Your task to perform on an android device: turn off smart reply in the gmail app Image 0: 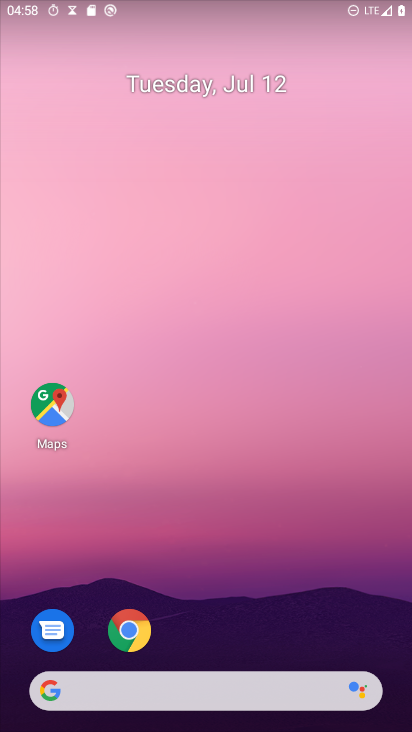
Step 0: drag from (315, 543) to (350, 0)
Your task to perform on an android device: turn off smart reply in the gmail app Image 1: 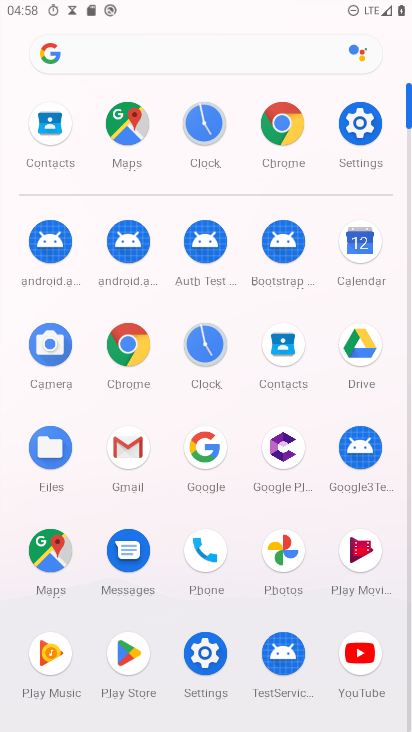
Step 1: click (136, 449)
Your task to perform on an android device: turn off smart reply in the gmail app Image 2: 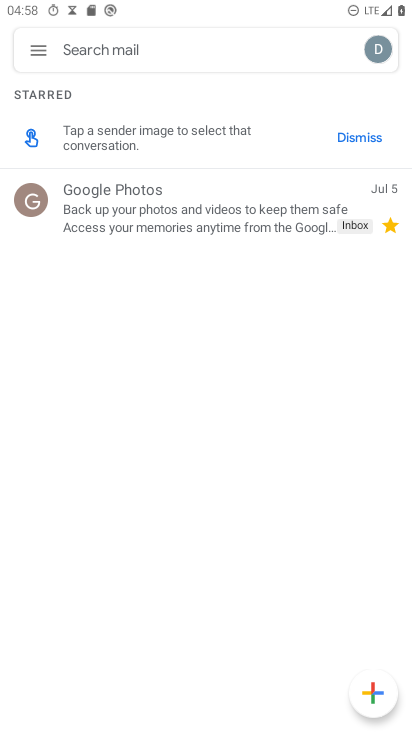
Step 2: click (40, 60)
Your task to perform on an android device: turn off smart reply in the gmail app Image 3: 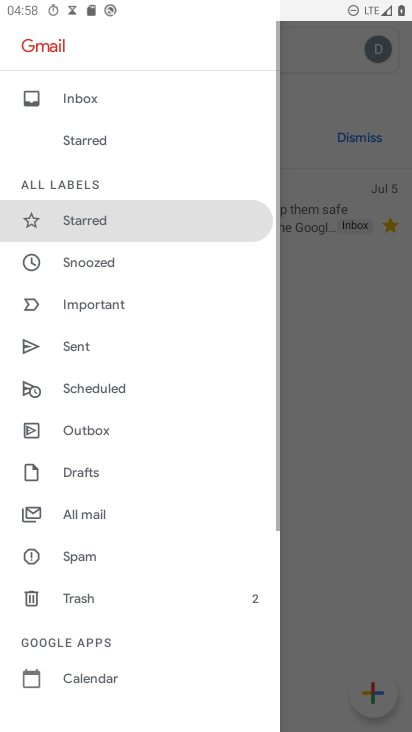
Step 3: drag from (138, 659) to (181, 264)
Your task to perform on an android device: turn off smart reply in the gmail app Image 4: 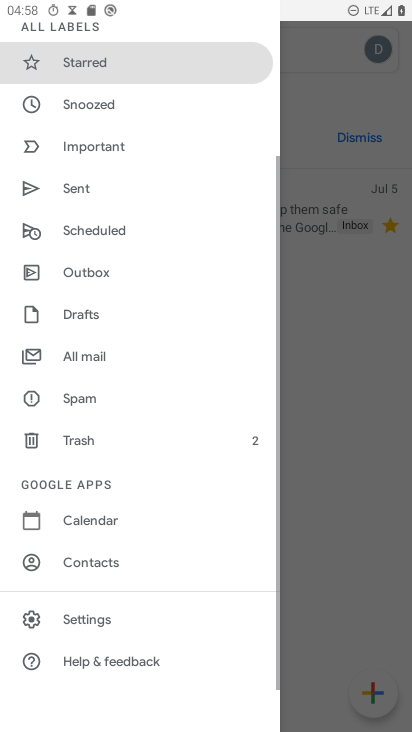
Step 4: click (120, 622)
Your task to perform on an android device: turn off smart reply in the gmail app Image 5: 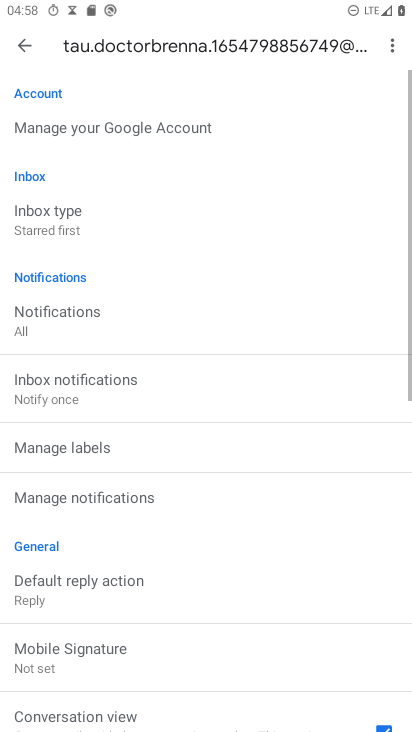
Step 5: task complete